Your task to perform on an android device: open sync settings in chrome Image 0: 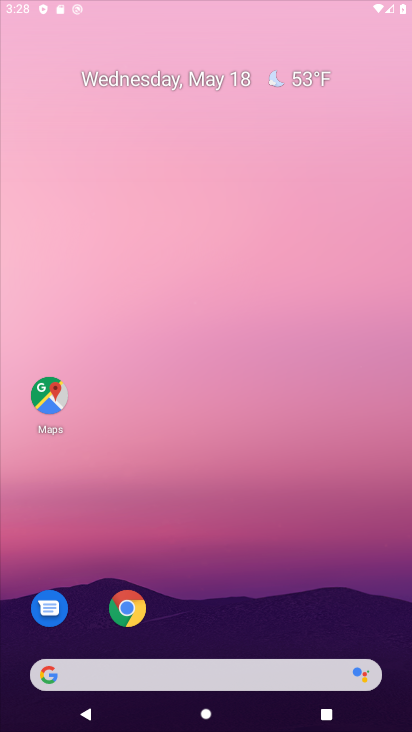
Step 0: drag from (270, 383) to (409, 35)
Your task to perform on an android device: open sync settings in chrome Image 1: 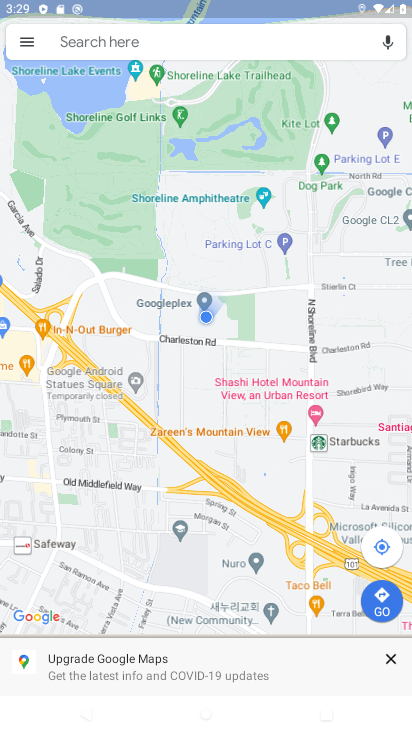
Step 1: press home button
Your task to perform on an android device: open sync settings in chrome Image 2: 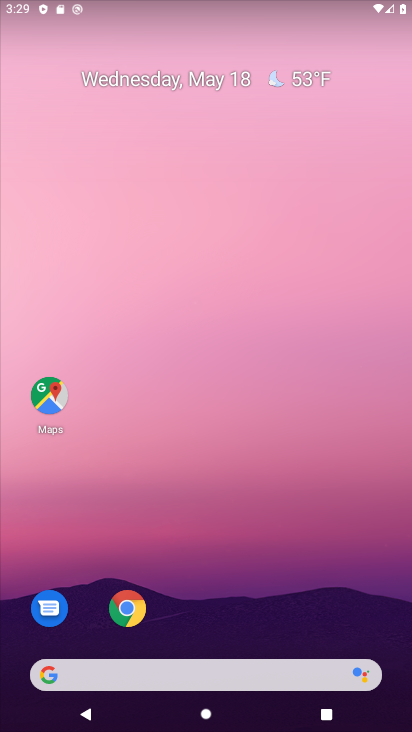
Step 2: drag from (281, 692) to (302, 65)
Your task to perform on an android device: open sync settings in chrome Image 3: 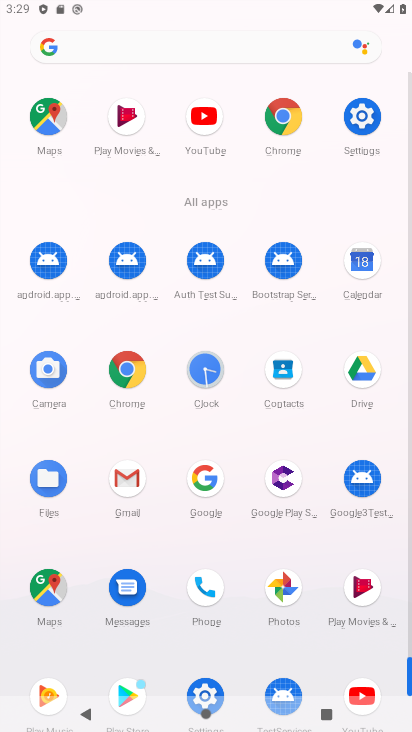
Step 3: click (137, 376)
Your task to perform on an android device: open sync settings in chrome Image 4: 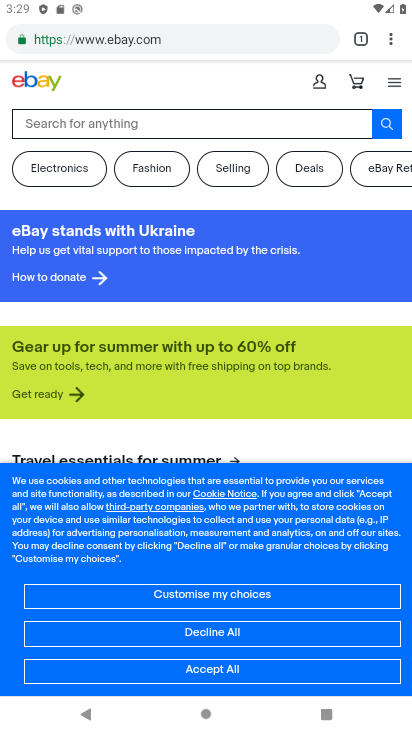
Step 4: click (386, 39)
Your task to perform on an android device: open sync settings in chrome Image 5: 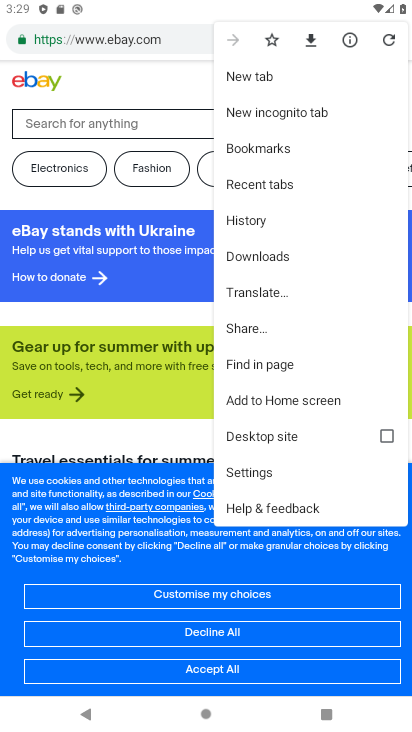
Step 5: click (272, 474)
Your task to perform on an android device: open sync settings in chrome Image 6: 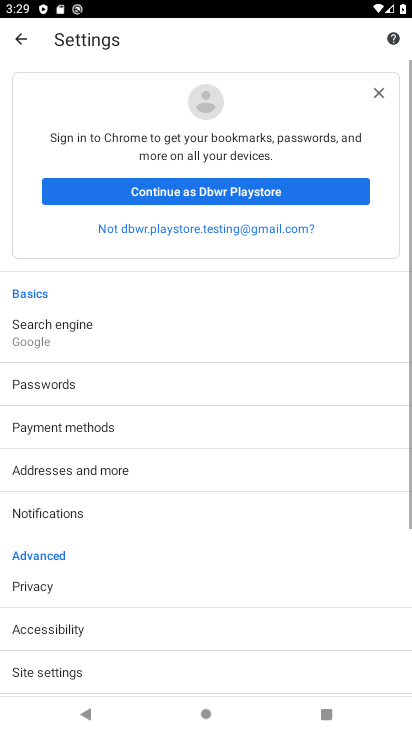
Step 6: drag from (197, 655) to (111, 330)
Your task to perform on an android device: open sync settings in chrome Image 7: 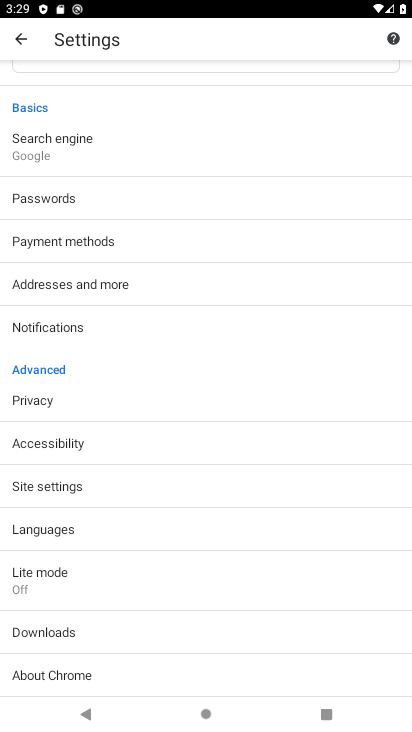
Step 7: click (65, 470)
Your task to perform on an android device: open sync settings in chrome Image 8: 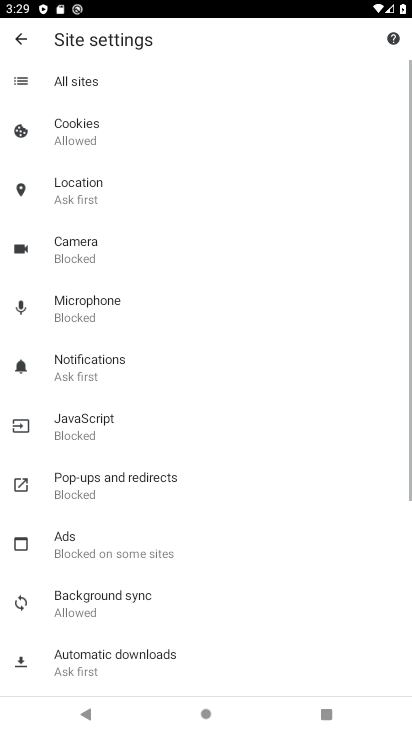
Step 8: drag from (176, 672) to (152, 358)
Your task to perform on an android device: open sync settings in chrome Image 9: 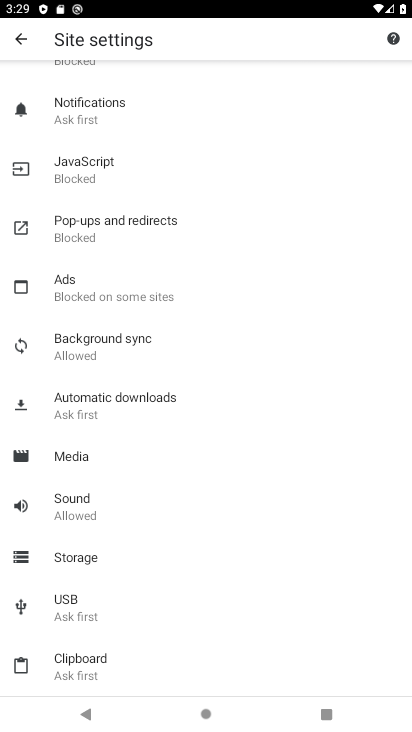
Step 9: click (156, 340)
Your task to perform on an android device: open sync settings in chrome Image 10: 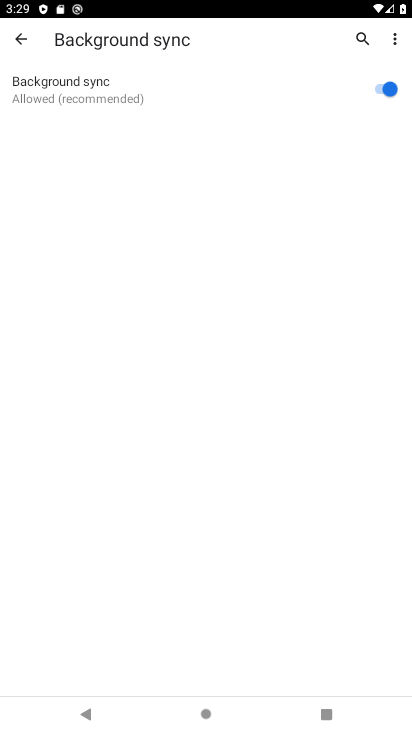
Step 10: task complete